Your task to perform on an android device: make emails show in primary in the gmail app Image 0: 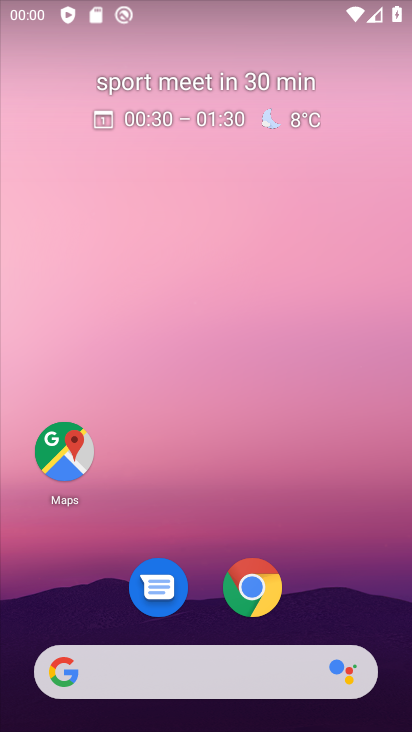
Step 0: drag from (401, 678) to (378, 294)
Your task to perform on an android device: make emails show in primary in the gmail app Image 1: 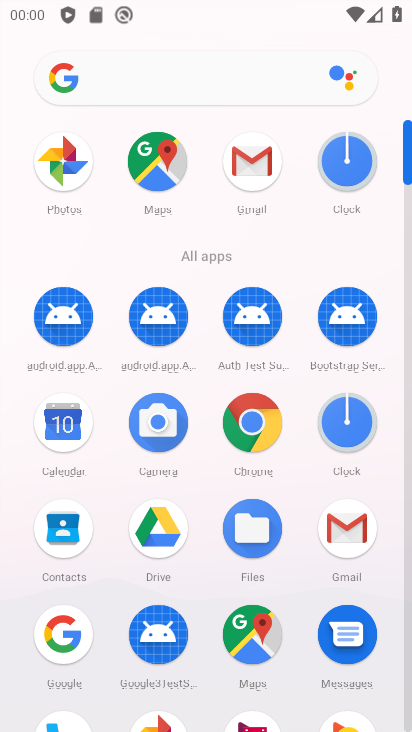
Step 1: click (342, 541)
Your task to perform on an android device: make emails show in primary in the gmail app Image 2: 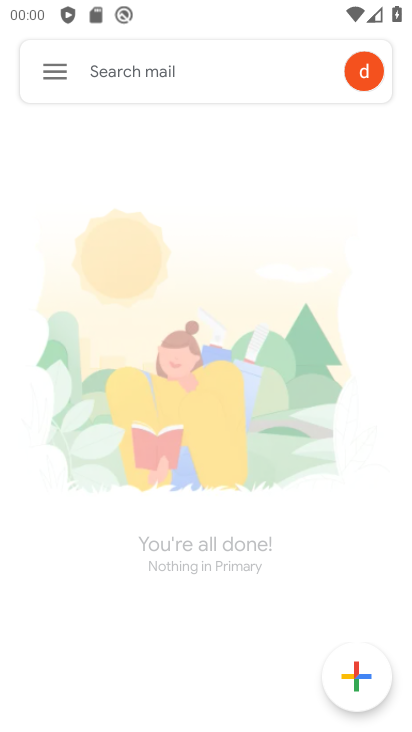
Step 2: click (57, 71)
Your task to perform on an android device: make emails show in primary in the gmail app Image 3: 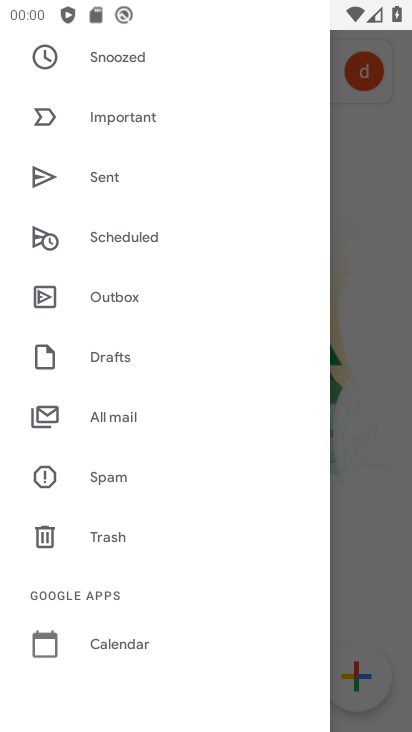
Step 3: drag from (246, 592) to (251, 252)
Your task to perform on an android device: make emails show in primary in the gmail app Image 4: 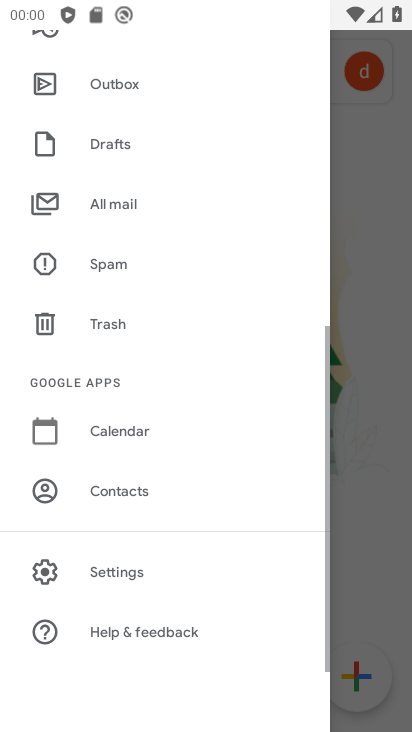
Step 4: click (124, 566)
Your task to perform on an android device: make emails show in primary in the gmail app Image 5: 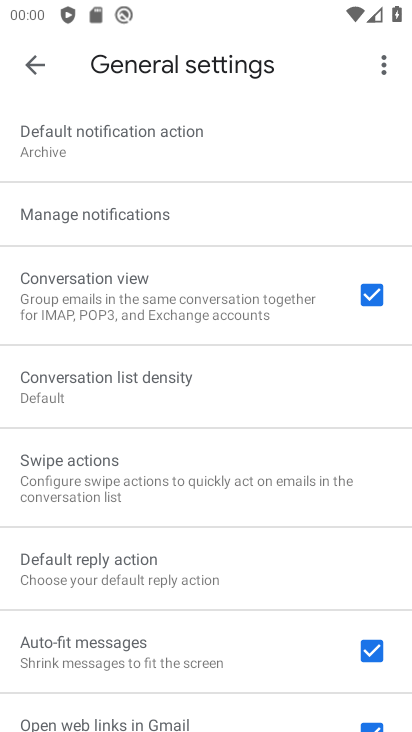
Step 5: click (29, 69)
Your task to perform on an android device: make emails show in primary in the gmail app Image 6: 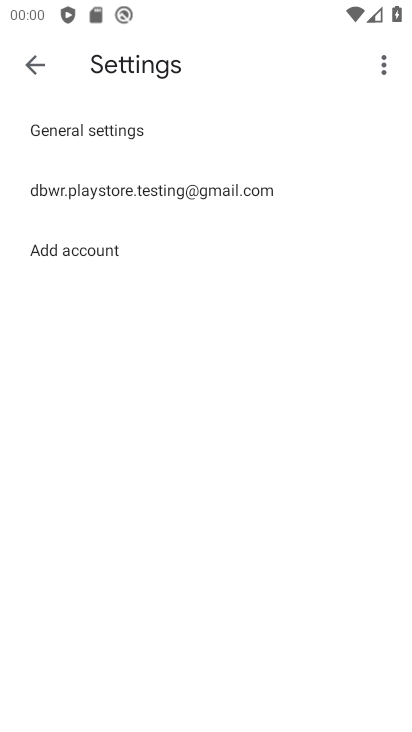
Step 6: click (120, 195)
Your task to perform on an android device: make emails show in primary in the gmail app Image 7: 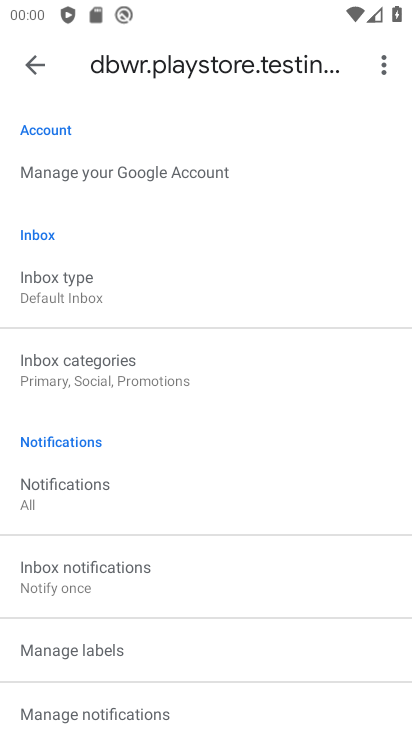
Step 7: click (72, 374)
Your task to perform on an android device: make emails show in primary in the gmail app Image 8: 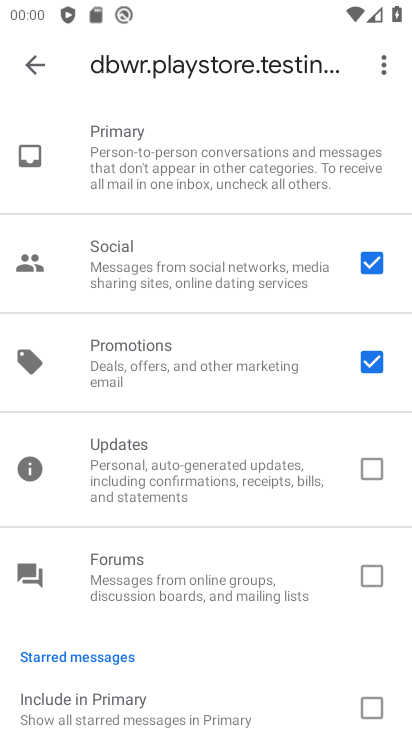
Step 8: click (356, 369)
Your task to perform on an android device: make emails show in primary in the gmail app Image 9: 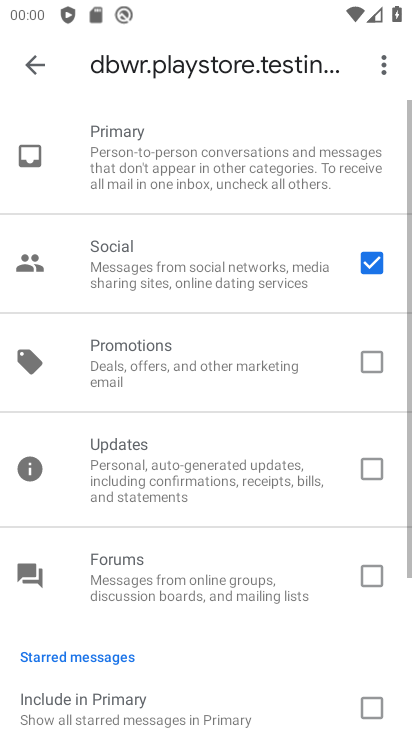
Step 9: click (376, 261)
Your task to perform on an android device: make emails show in primary in the gmail app Image 10: 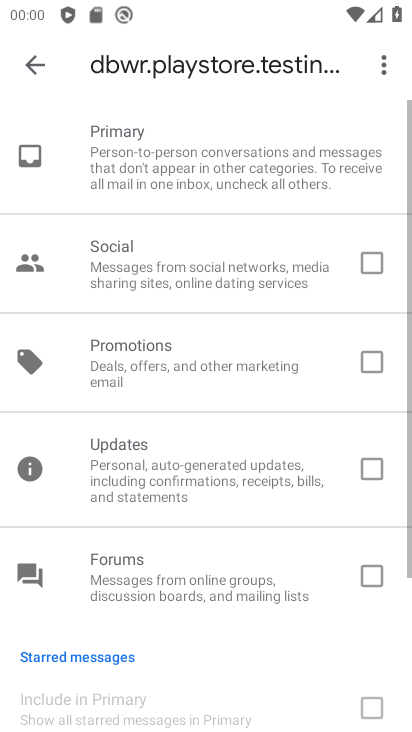
Step 10: click (34, 71)
Your task to perform on an android device: make emails show in primary in the gmail app Image 11: 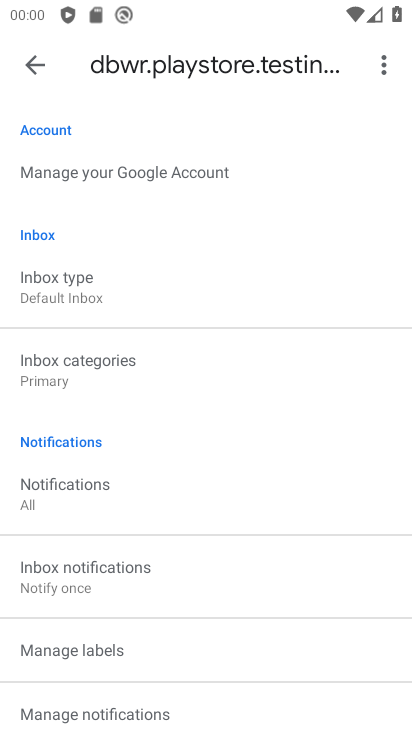
Step 11: task complete